Your task to perform on an android device: Open network settings Image 0: 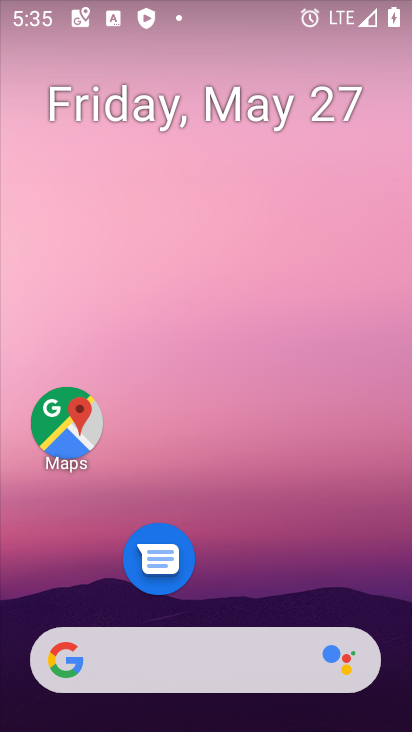
Step 0: drag from (288, 635) to (241, 21)
Your task to perform on an android device: Open network settings Image 1: 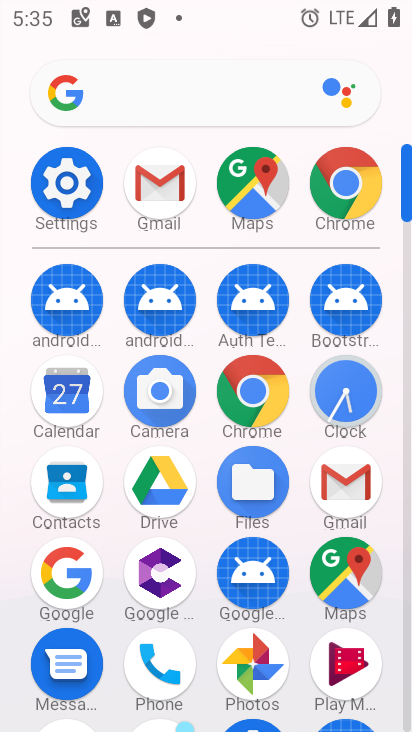
Step 1: click (51, 175)
Your task to perform on an android device: Open network settings Image 2: 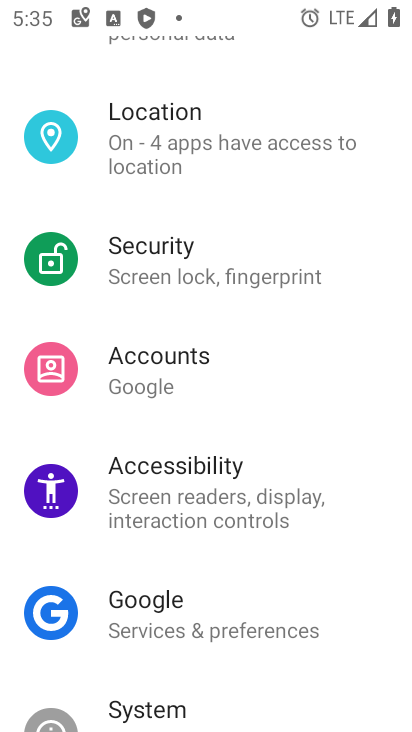
Step 2: drag from (229, 177) to (210, 711)
Your task to perform on an android device: Open network settings Image 3: 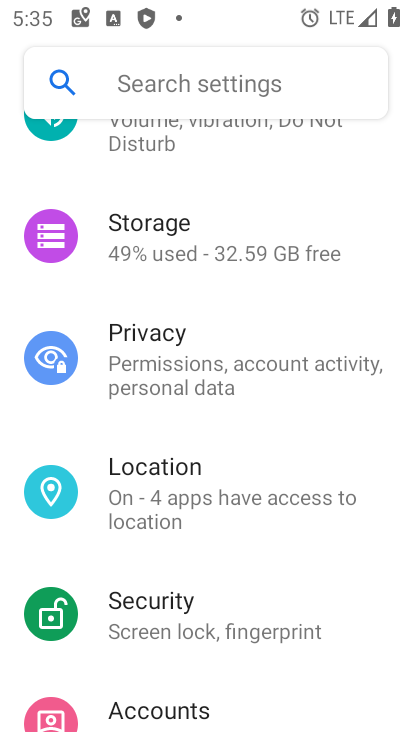
Step 3: drag from (252, 236) to (217, 716)
Your task to perform on an android device: Open network settings Image 4: 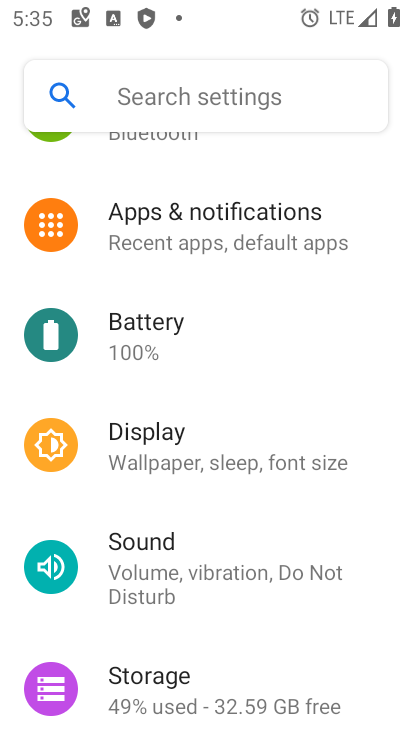
Step 4: drag from (227, 638) to (239, 722)
Your task to perform on an android device: Open network settings Image 5: 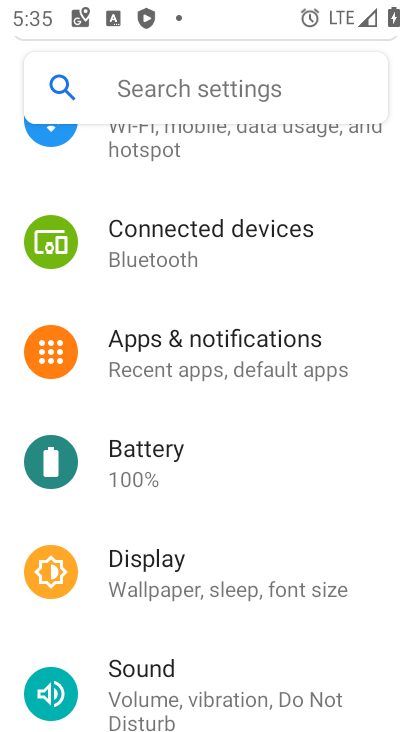
Step 5: drag from (286, 250) to (406, 729)
Your task to perform on an android device: Open network settings Image 6: 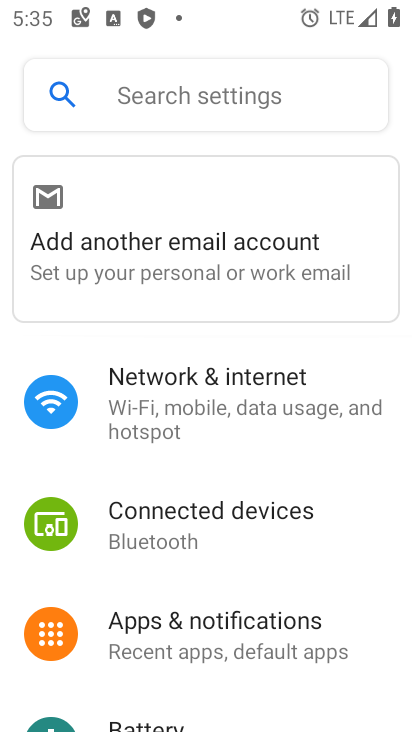
Step 6: click (301, 404)
Your task to perform on an android device: Open network settings Image 7: 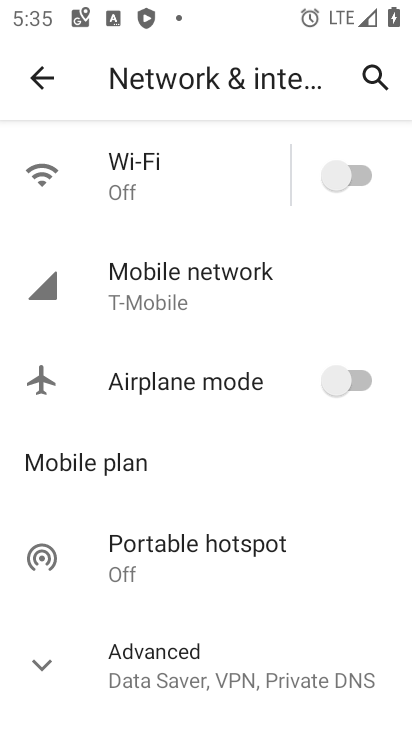
Step 7: task complete